Your task to perform on an android device: delete a single message in the gmail app Image 0: 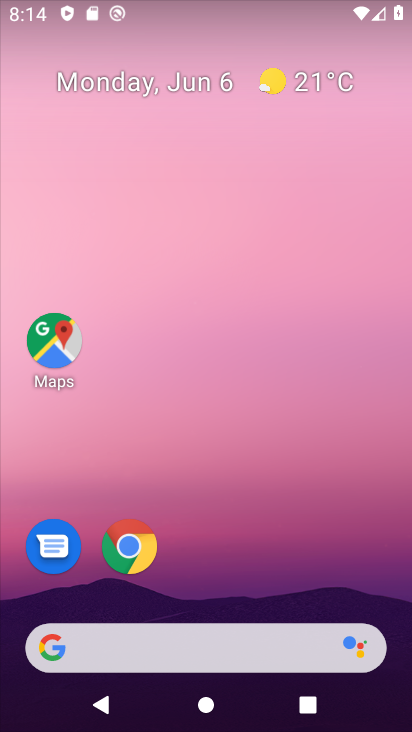
Step 0: drag from (276, 400) to (286, 162)
Your task to perform on an android device: delete a single message in the gmail app Image 1: 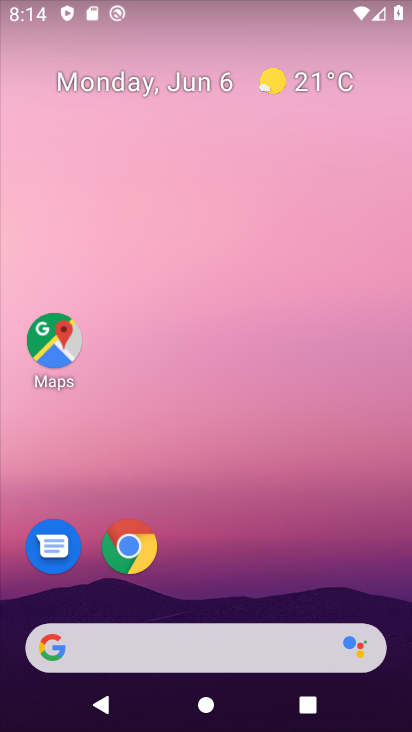
Step 1: drag from (280, 574) to (344, 7)
Your task to perform on an android device: delete a single message in the gmail app Image 2: 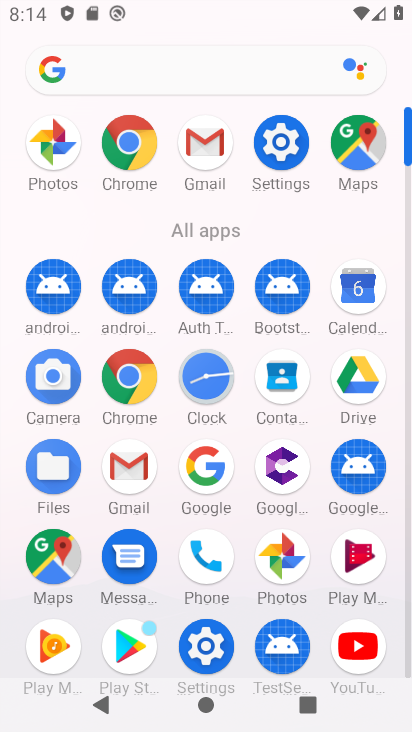
Step 2: click (217, 153)
Your task to perform on an android device: delete a single message in the gmail app Image 3: 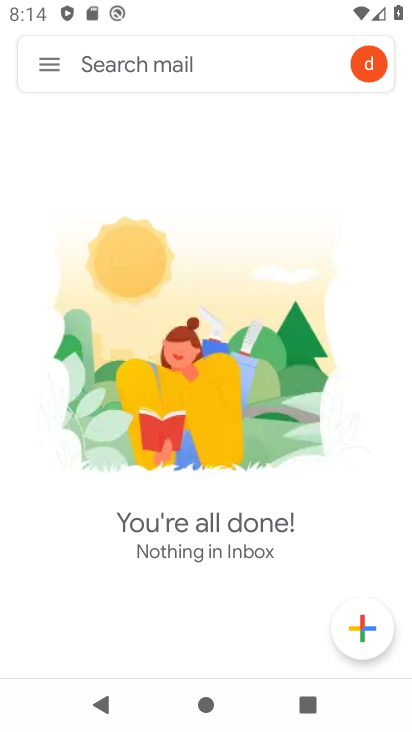
Step 3: task complete